Your task to perform on an android device: Open battery settings Image 0: 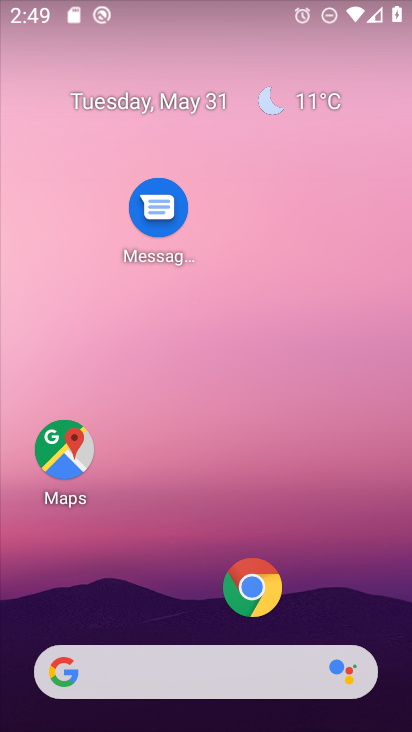
Step 0: click (318, 33)
Your task to perform on an android device: Open battery settings Image 1: 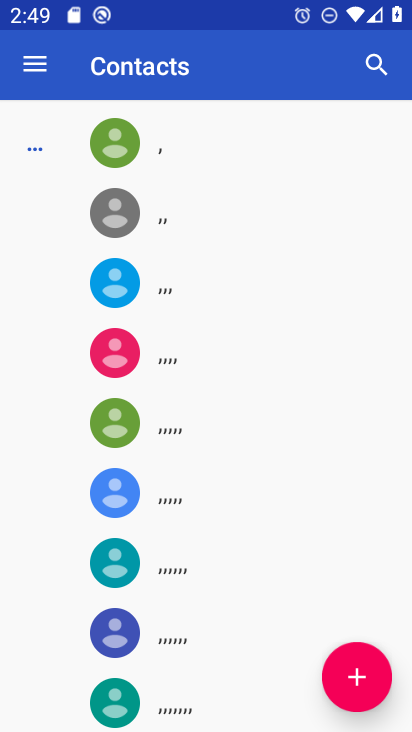
Step 1: press home button
Your task to perform on an android device: Open battery settings Image 2: 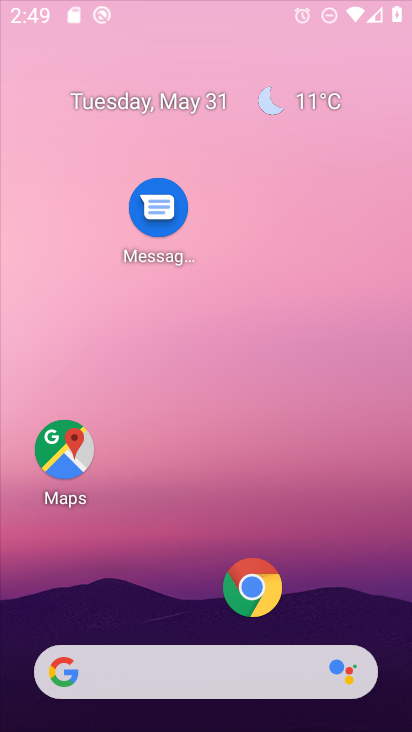
Step 2: drag from (194, 616) to (247, 133)
Your task to perform on an android device: Open battery settings Image 3: 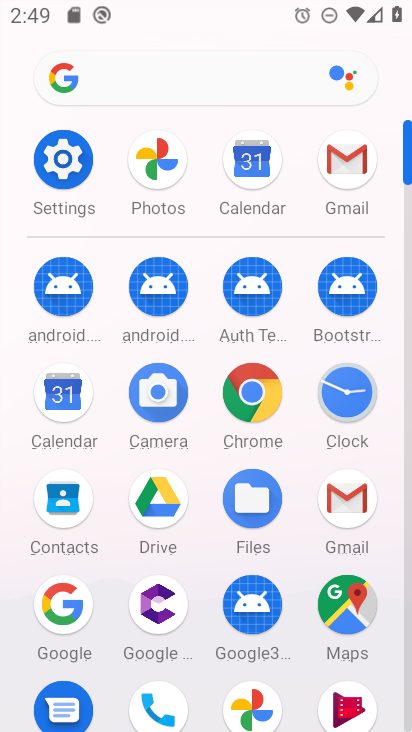
Step 3: click (67, 158)
Your task to perform on an android device: Open battery settings Image 4: 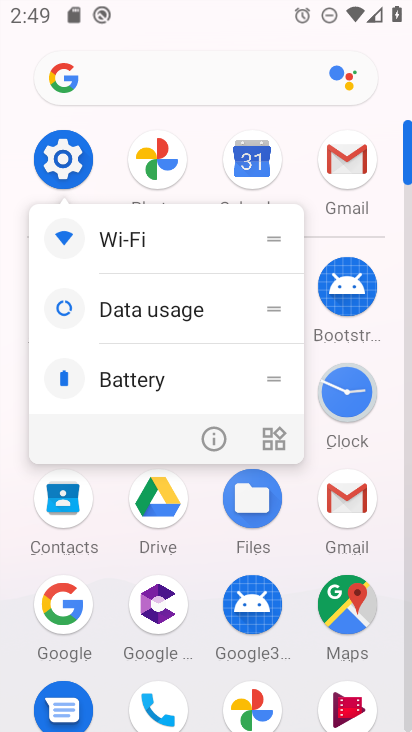
Step 4: click (222, 436)
Your task to perform on an android device: Open battery settings Image 5: 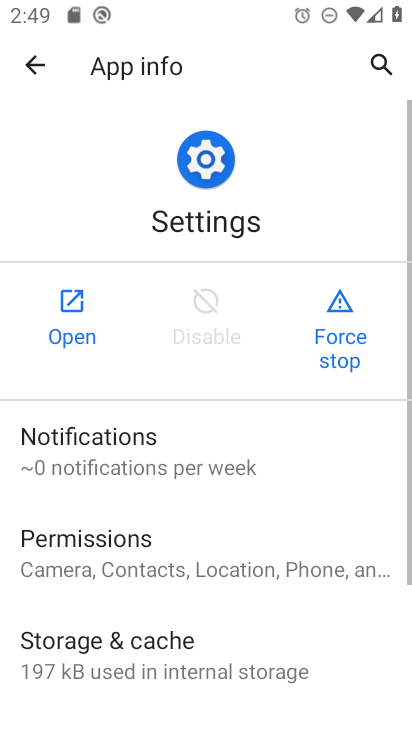
Step 5: click (66, 288)
Your task to perform on an android device: Open battery settings Image 6: 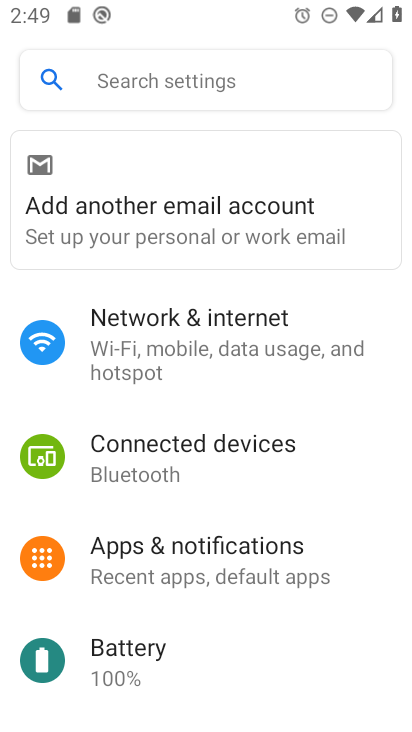
Step 6: drag from (244, 635) to (387, 103)
Your task to perform on an android device: Open battery settings Image 7: 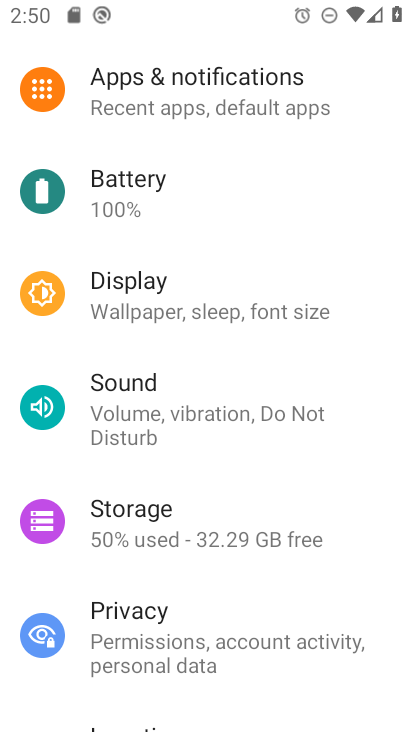
Step 7: click (192, 192)
Your task to perform on an android device: Open battery settings Image 8: 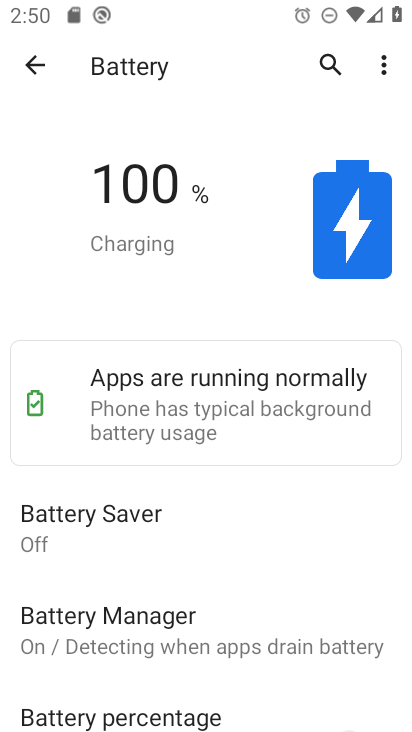
Step 8: task complete